Your task to perform on an android device: Is it going to rain tomorrow? Image 0: 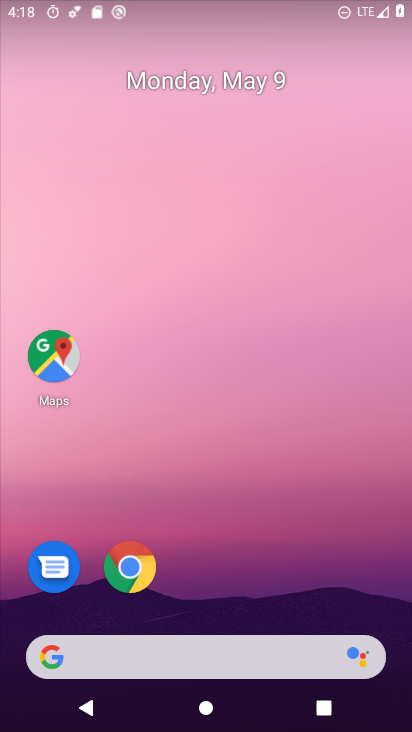
Step 0: click (198, 660)
Your task to perform on an android device: Is it going to rain tomorrow? Image 1: 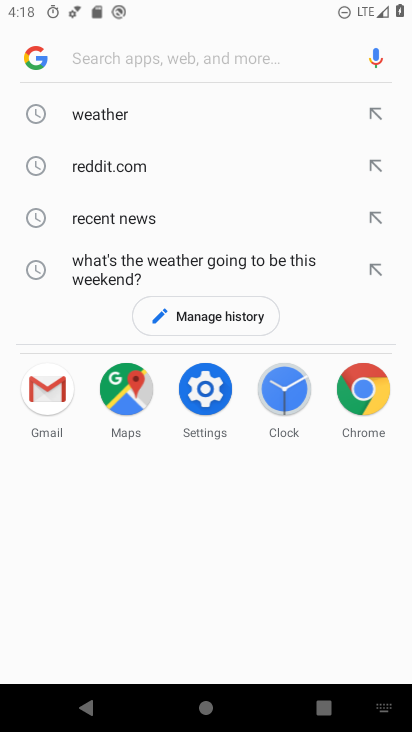
Step 1: click (124, 115)
Your task to perform on an android device: Is it going to rain tomorrow? Image 2: 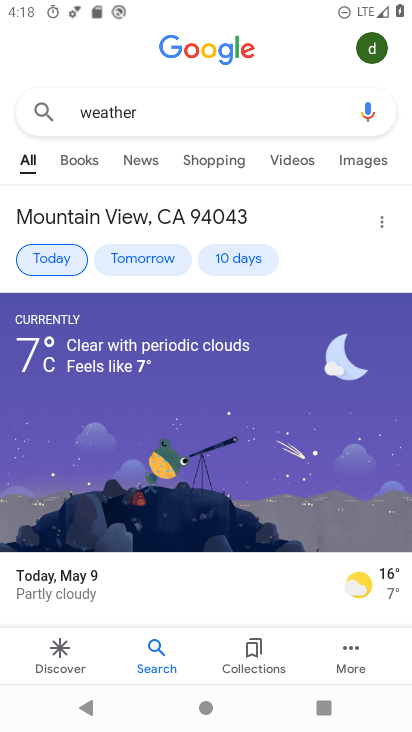
Step 2: click (146, 258)
Your task to perform on an android device: Is it going to rain tomorrow? Image 3: 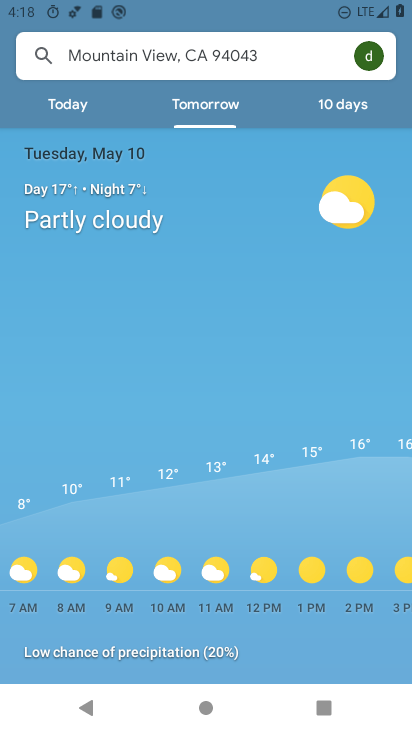
Step 3: task complete